Your task to perform on an android device: Turn on the flashlight Image 0: 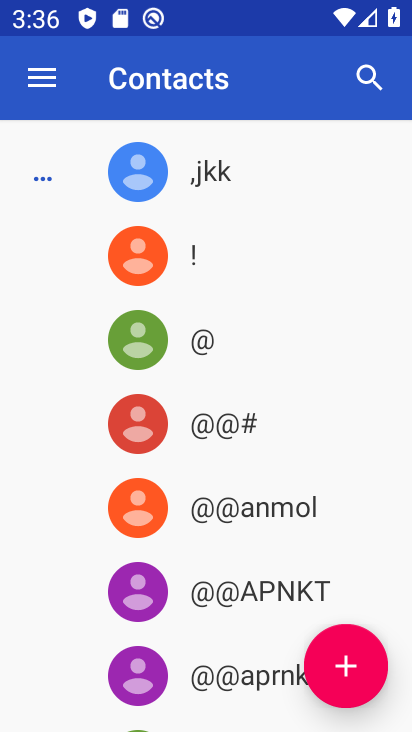
Step 0: press home button
Your task to perform on an android device: Turn on the flashlight Image 1: 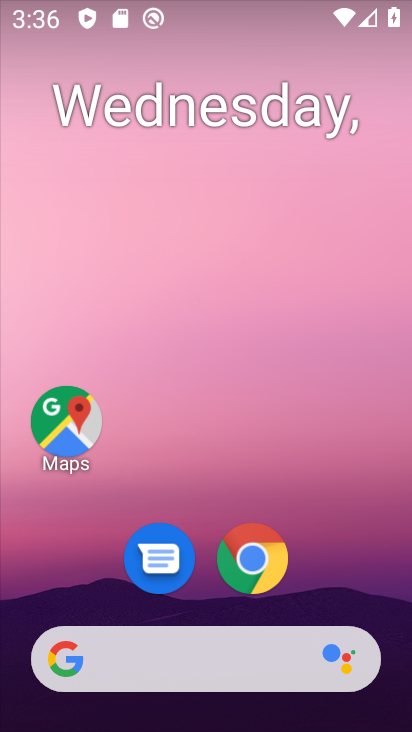
Step 1: drag from (234, 687) to (252, 57)
Your task to perform on an android device: Turn on the flashlight Image 2: 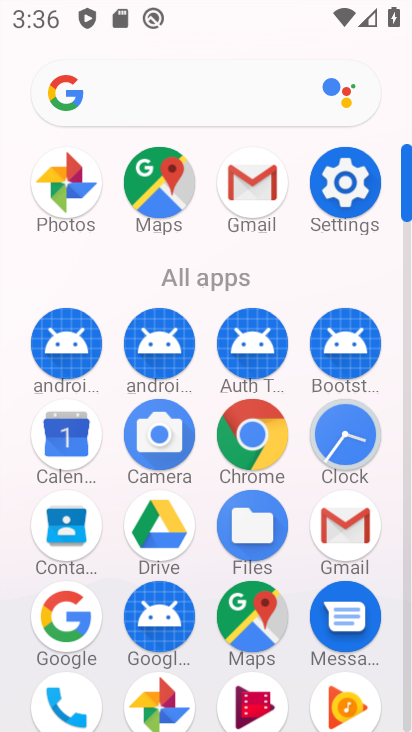
Step 2: click (335, 171)
Your task to perform on an android device: Turn on the flashlight Image 3: 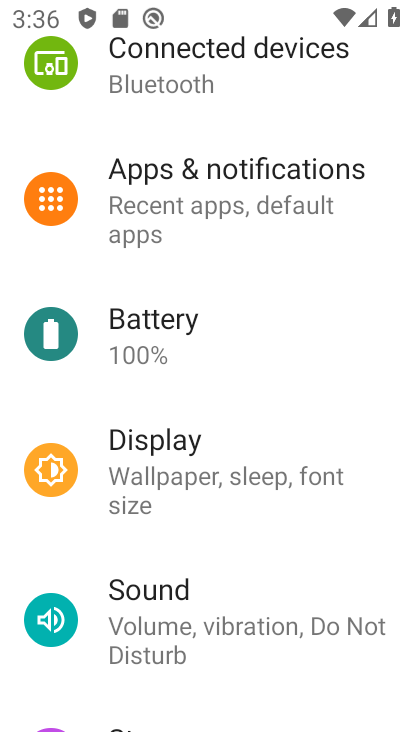
Step 3: drag from (154, 194) to (134, 391)
Your task to perform on an android device: Turn on the flashlight Image 4: 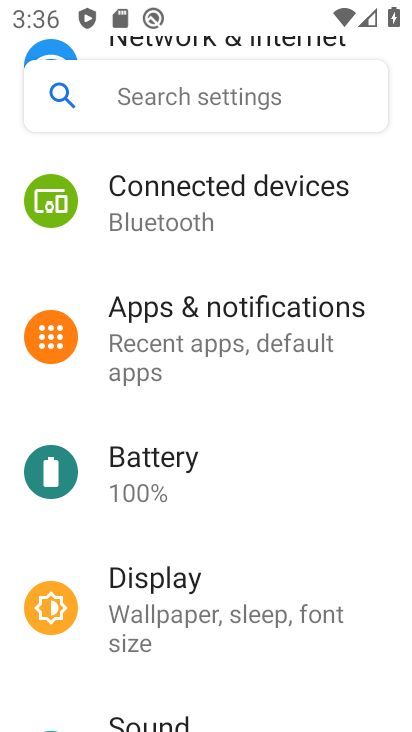
Step 4: click (135, 87)
Your task to perform on an android device: Turn on the flashlight Image 5: 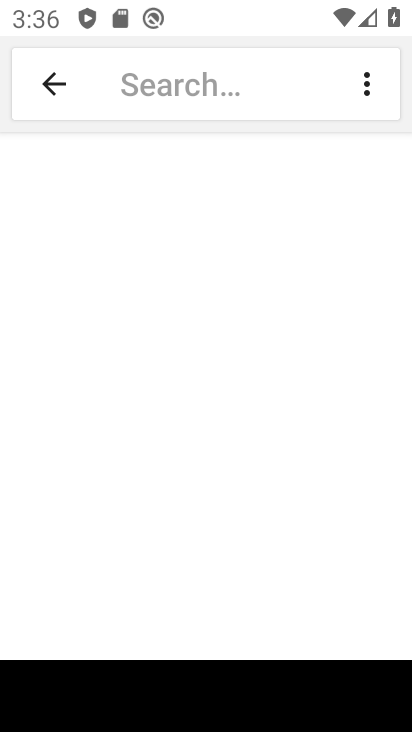
Step 5: drag from (386, 708) to (377, 634)
Your task to perform on an android device: Turn on the flashlight Image 6: 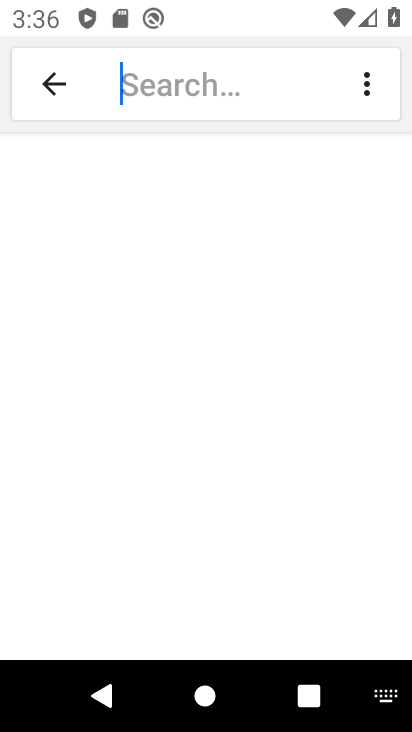
Step 6: click (389, 695)
Your task to perform on an android device: Turn on the flashlight Image 7: 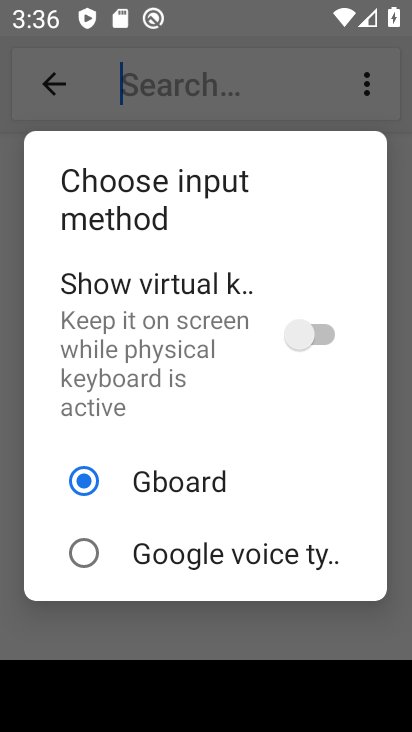
Step 7: click (314, 330)
Your task to perform on an android device: Turn on the flashlight Image 8: 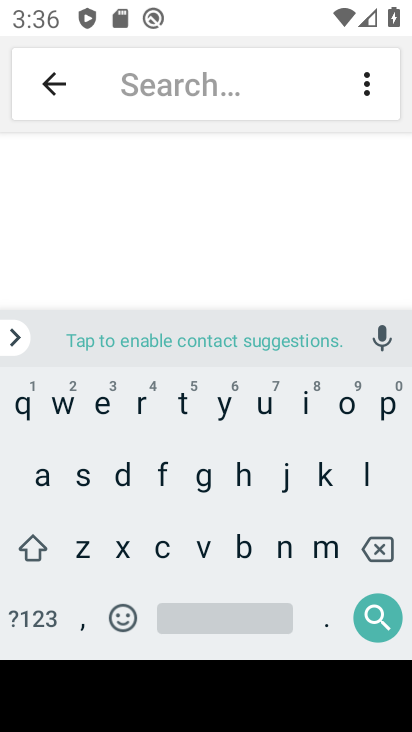
Step 8: click (155, 467)
Your task to perform on an android device: Turn on the flashlight Image 9: 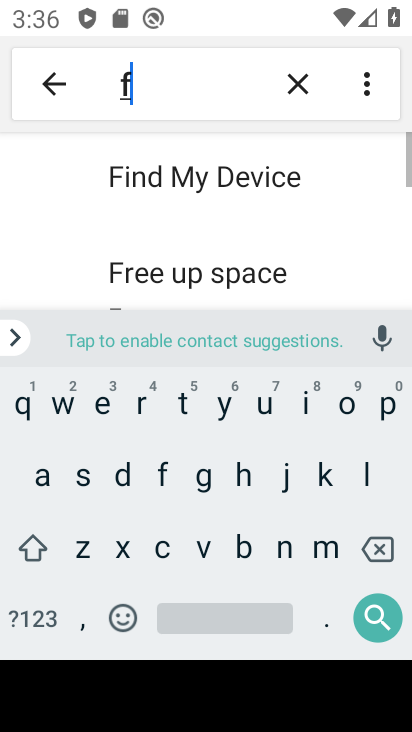
Step 9: click (365, 468)
Your task to perform on an android device: Turn on the flashlight Image 10: 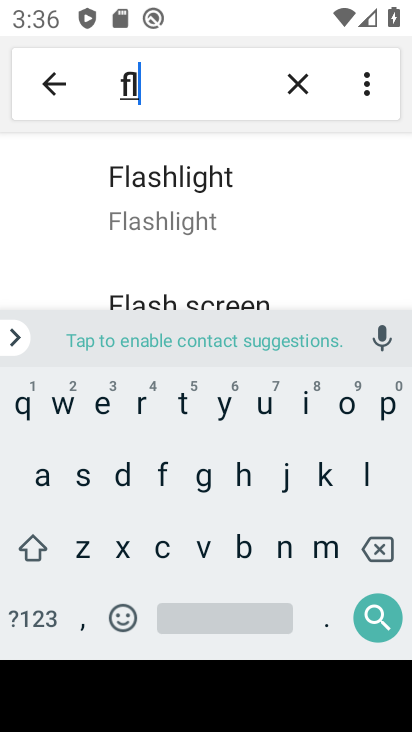
Step 10: click (175, 167)
Your task to perform on an android device: Turn on the flashlight Image 11: 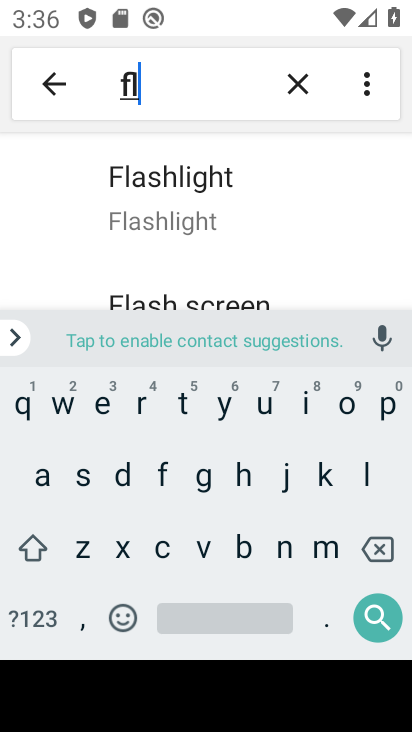
Step 11: task complete